Your task to perform on an android device: What's the weather going to be this weekend? Image 0: 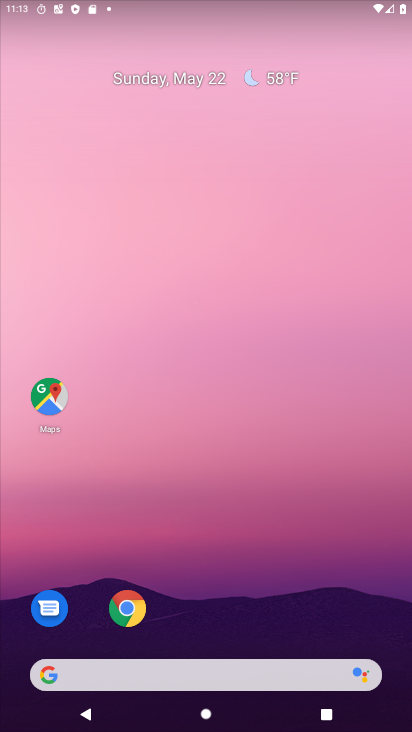
Step 0: click (244, 75)
Your task to perform on an android device: What's the weather going to be this weekend? Image 1: 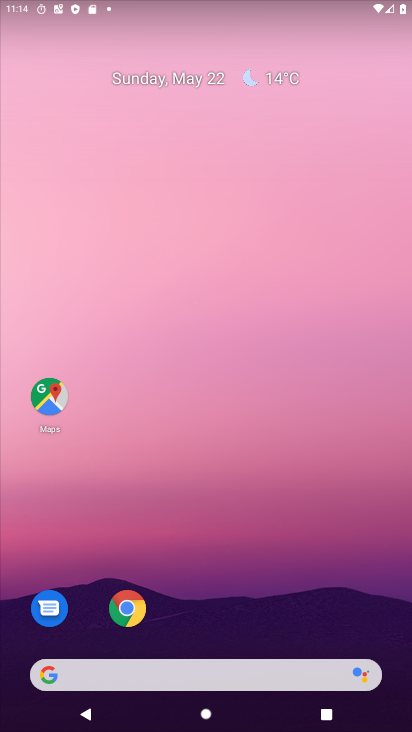
Step 1: click (248, 78)
Your task to perform on an android device: What's the weather going to be this weekend? Image 2: 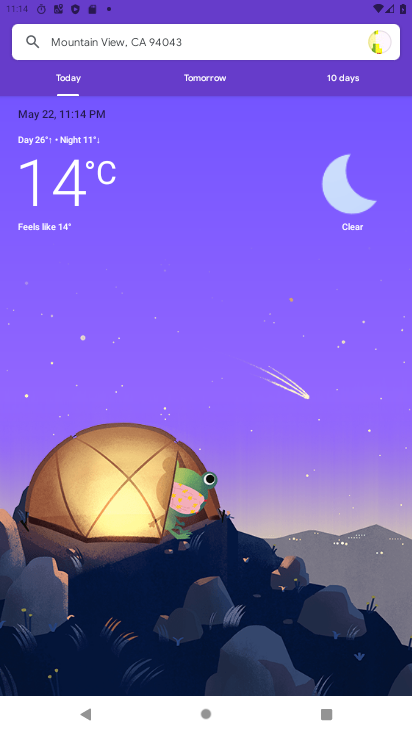
Step 2: click (341, 73)
Your task to perform on an android device: What's the weather going to be this weekend? Image 3: 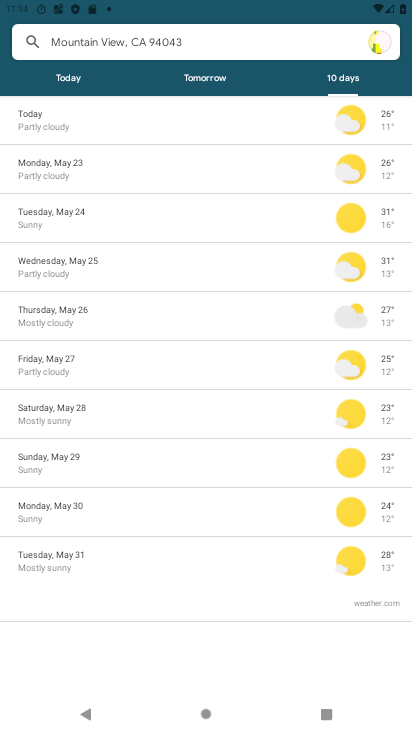
Step 3: click (55, 411)
Your task to perform on an android device: What's the weather going to be this weekend? Image 4: 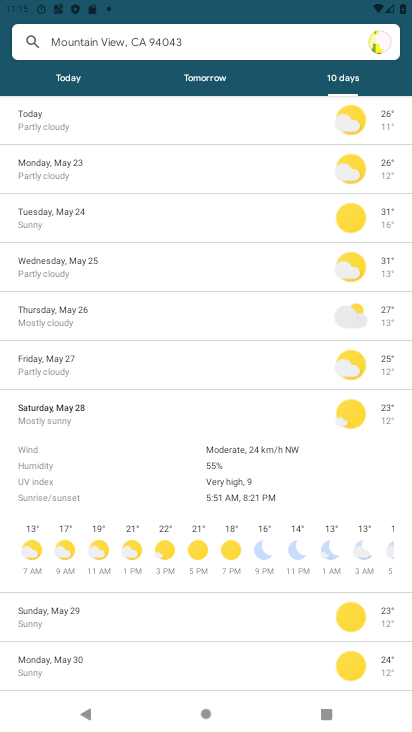
Step 4: task complete